Your task to perform on an android device: Open Google Chrome Image 0: 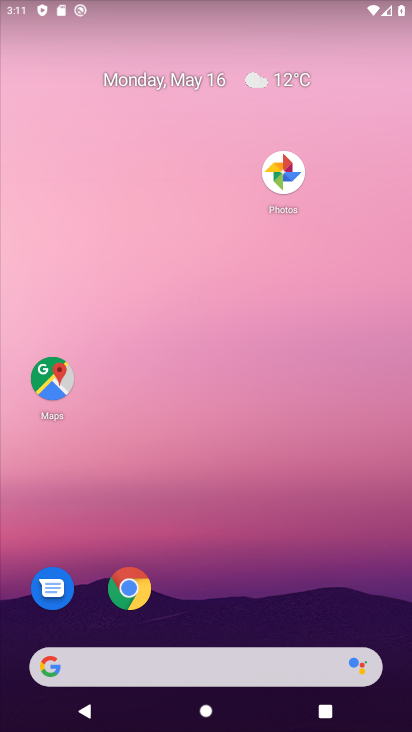
Step 0: click (121, 582)
Your task to perform on an android device: Open Google Chrome Image 1: 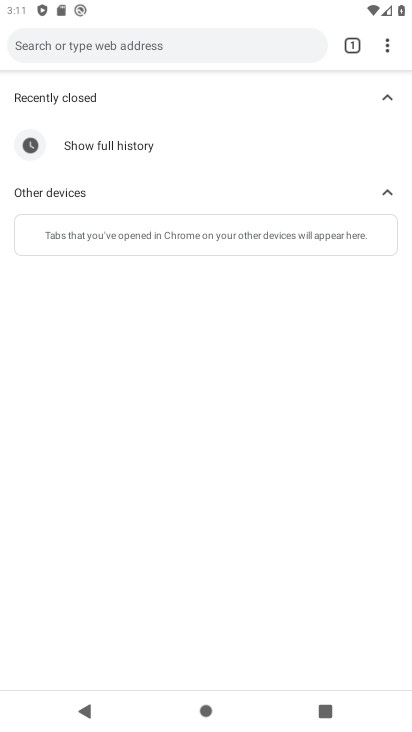
Step 1: task complete